Your task to perform on an android device: Go to Amazon Image 0: 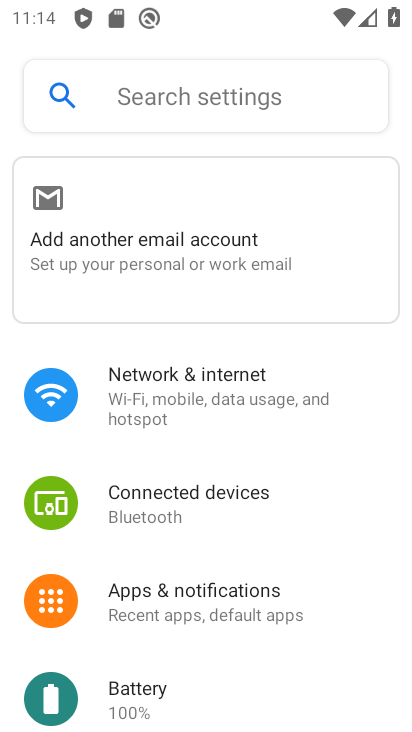
Step 0: press home button
Your task to perform on an android device: Go to Amazon Image 1: 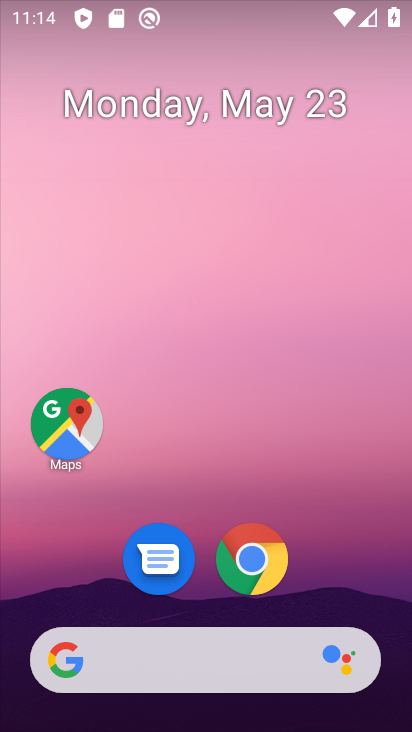
Step 1: click (260, 554)
Your task to perform on an android device: Go to Amazon Image 2: 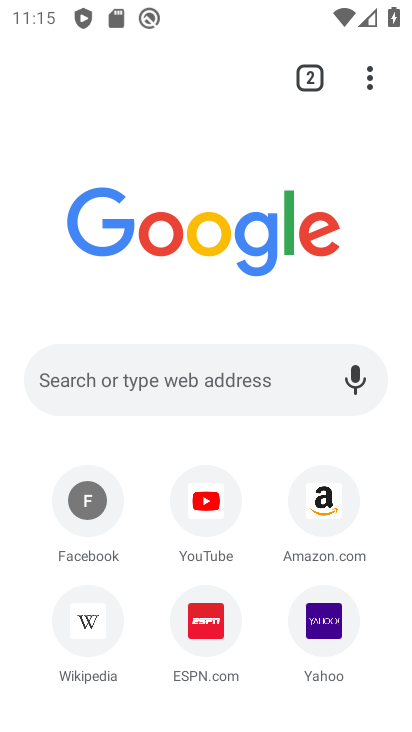
Step 2: click (201, 370)
Your task to perform on an android device: Go to Amazon Image 3: 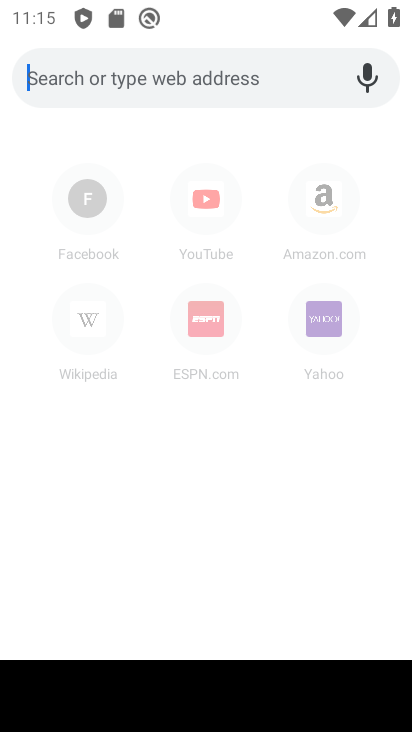
Step 3: type "Amazon"
Your task to perform on an android device: Go to Amazon Image 4: 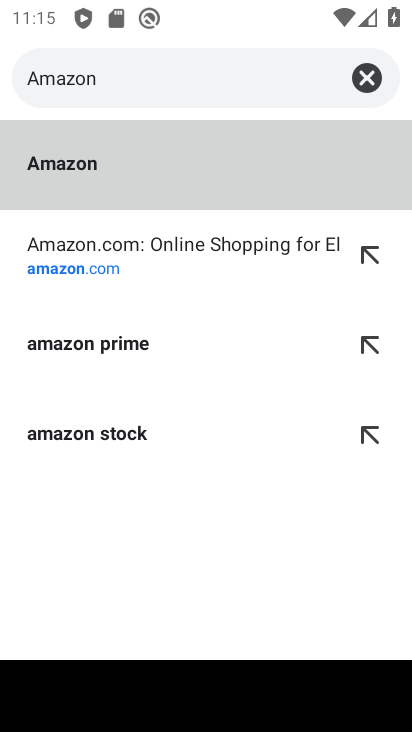
Step 4: click (58, 172)
Your task to perform on an android device: Go to Amazon Image 5: 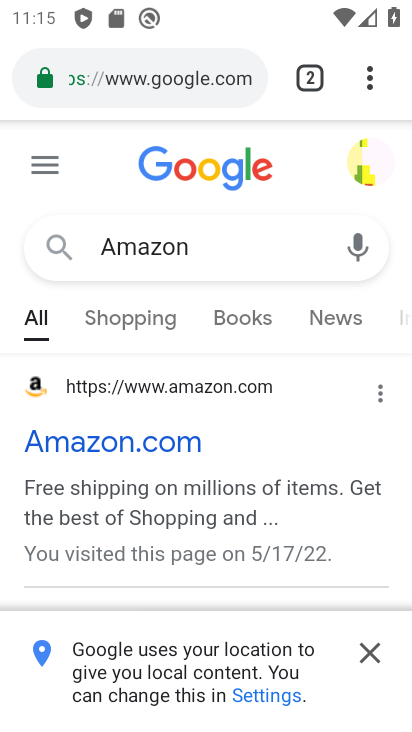
Step 5: task complete